Your task to perform on an android device: Go to Yahoo.com Image 0: 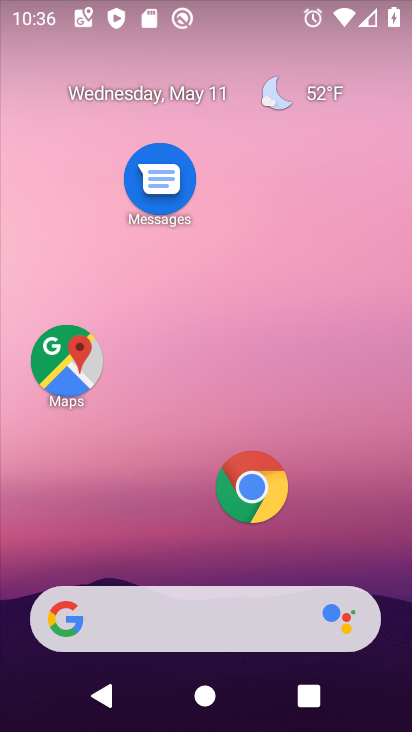
Step 0: click (267, 473)
Your task to perform on an android device: Go to Yahoo.com Image 1: 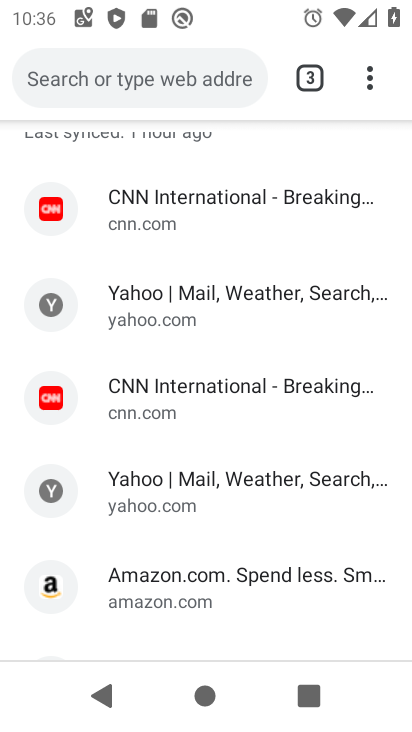
Step 1: click (310, 81)
Your task to perform on an android device: Go to Yahoo.com Image 2: 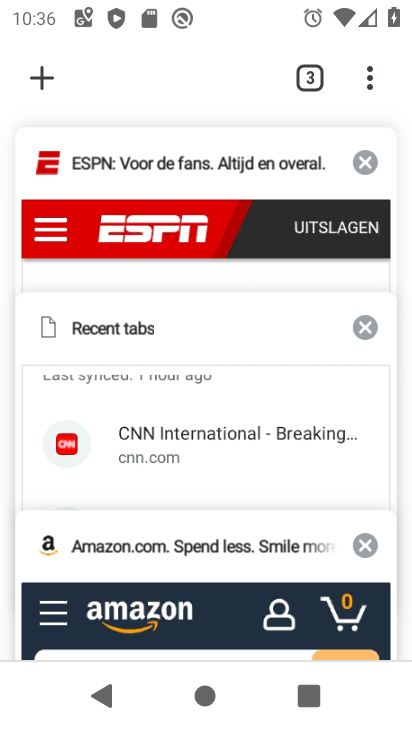
Step 2: click (43, 76)
Your task to perform on an android device: Go to Yahoo.com Image 3: 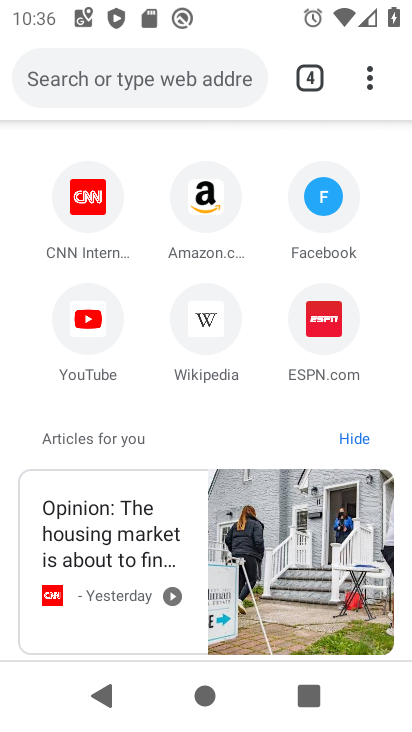
Step 3: click (164, 79)
Your task to perform on an android device: Go to Yahoo.com Image 4: 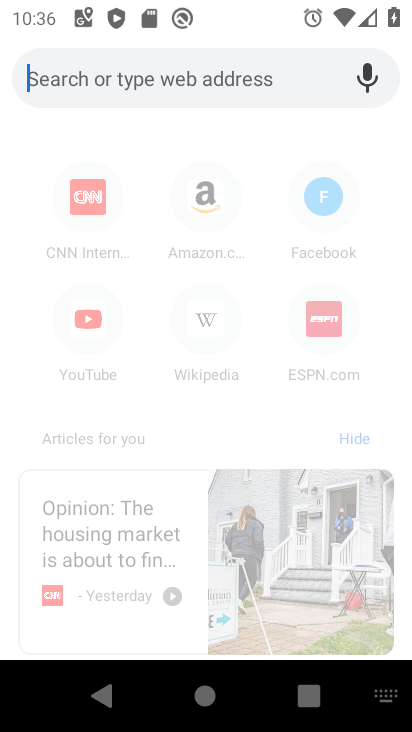
Step 4: type "Yahoo.com"
Your task to perform on an android device: Go to Yahoo.com Image 5: 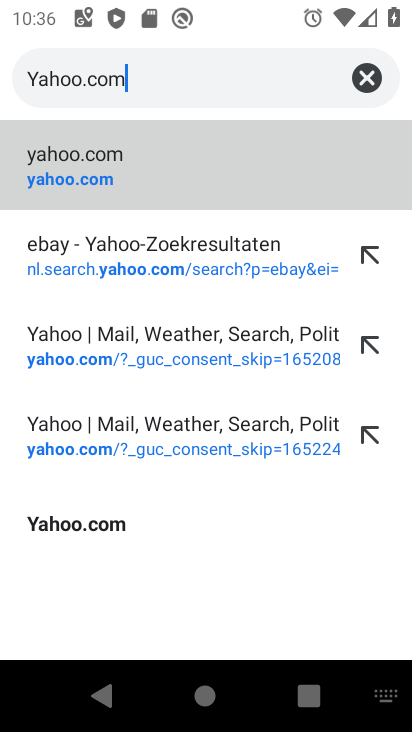
Step 5: click (126, 176)
Your task to perform on an android device: Go to Yahoo.com Image 6: 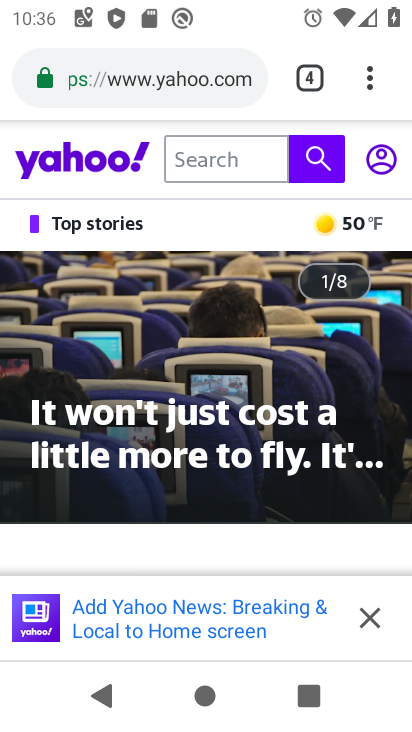
Step 6: task complete